Your task to perform on an android device: What's the weather today? Image 0: 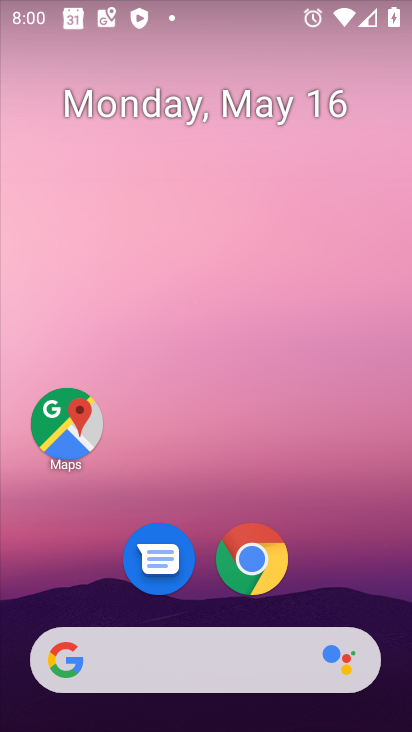
Step 0: drag from (352, 590) to (325, 179)
Your task to perform on an android device: What's the weather today? Image 1: 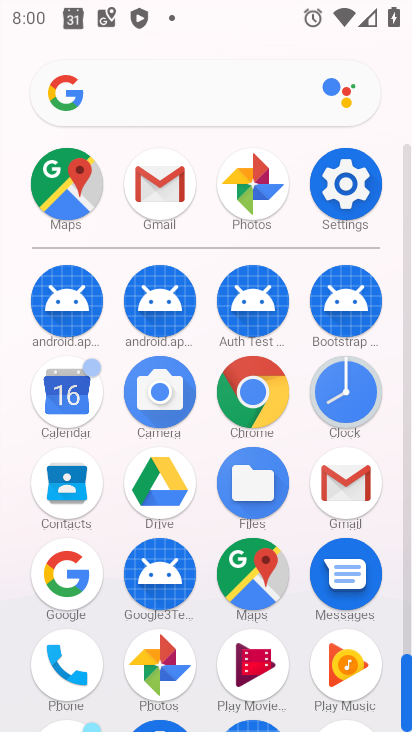
Step 1: click (259, 390)
Your task to perform on an android device: What's the weather today? Image 2: 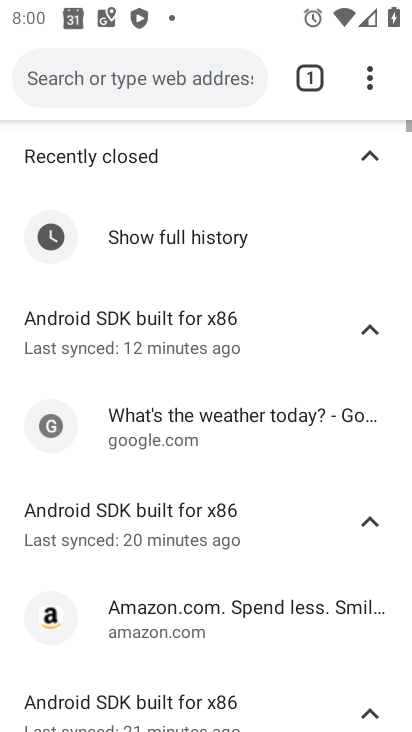
Step 2: click (150, 78)
Your task to perform on an android device: What's the weather today? Image 3: 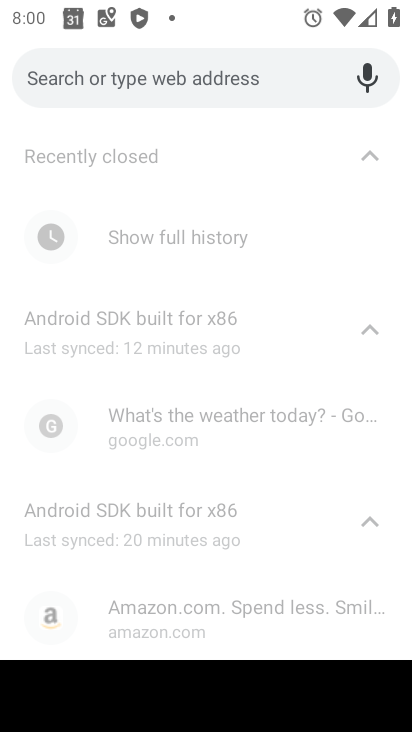
Step 3: type "what's the weather today"
Your task to perform on an android device: What's the weather today? Image 4: 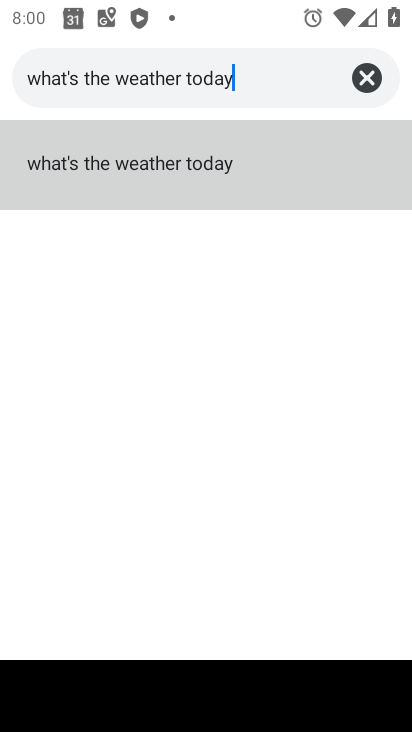
Step 4: click (137, 169)
Your task to perform on an android device: What's the weather today? Image 5: 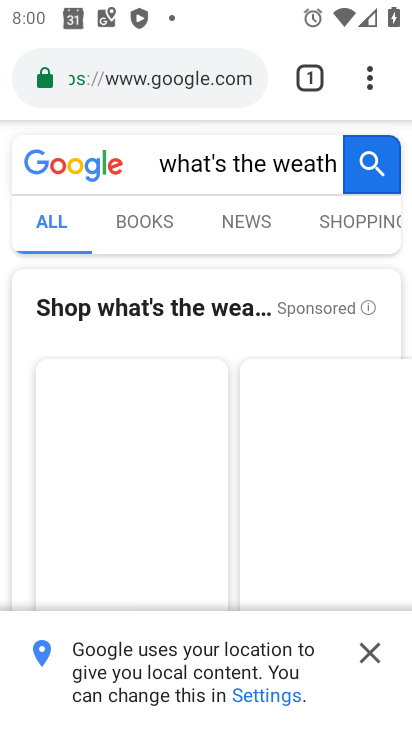
Step 5: task complete